Your task to perform on an android device: Search for sushi restaurants on Maps Image 0: 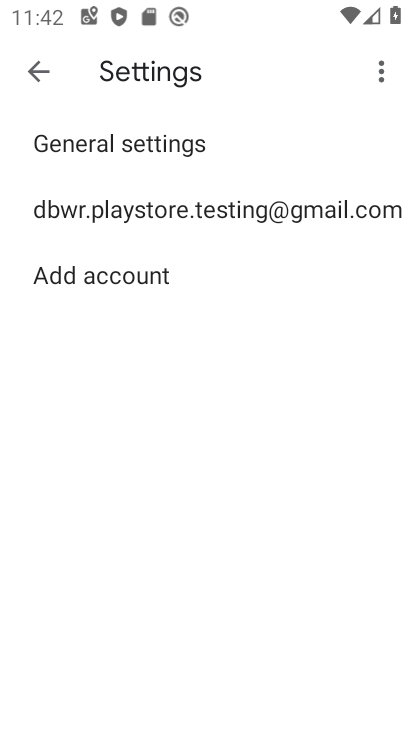
Step 0: press home button
Your task to perform on an android device: Search for sushi restaurants on Maps Image 1: 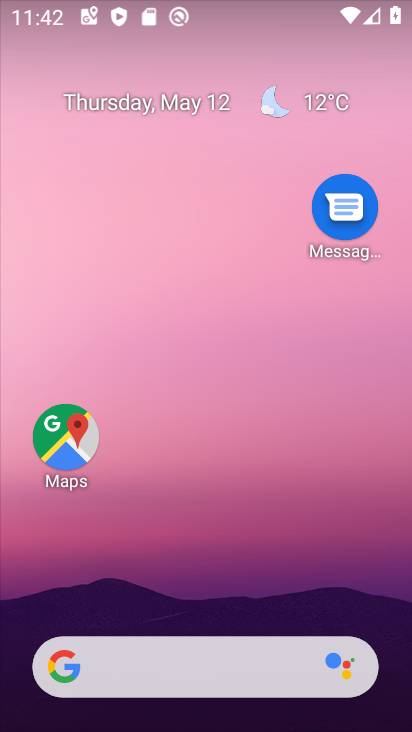
Step 1: drag from (199, 472) to (207, 35)
Your task to perform on an android device: Search for sushi restaurants on Maps Image 2: 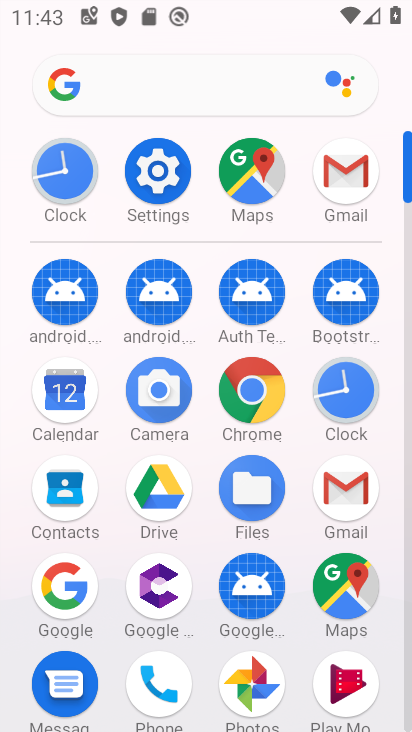
Step 2: click (345, 616)
Your task to perform on an android device: Search for sushi restaurants on Maps Image 3: 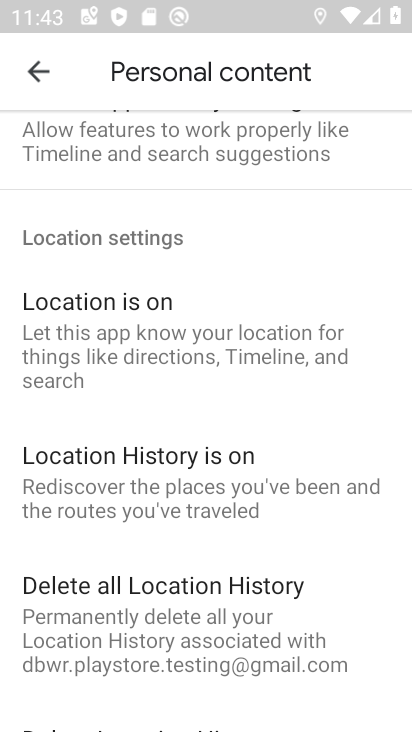
Step 3: click (19, 60)
Your task to perform on an android device: Search for sushi restaurants on Maps Image 4: 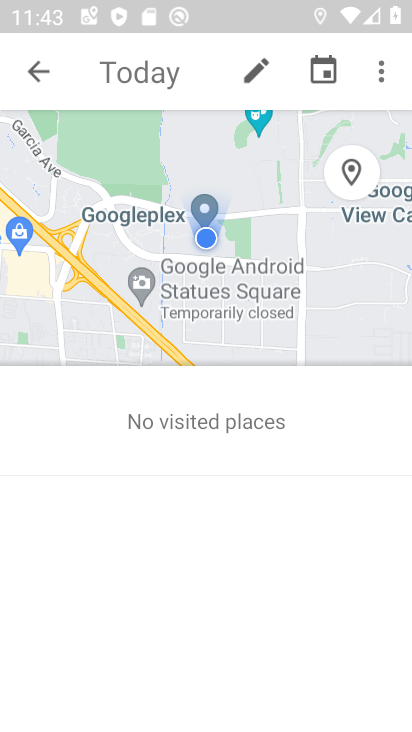
Step 4: click (19, 60)
Your task to perform on an android device: Search for sushi restaurants on Maps Image 5: 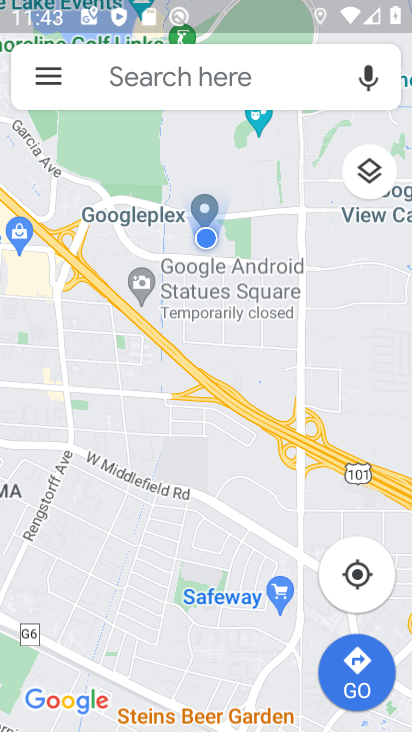
Step 5: click (110, 79)
Your task to perform on an android device: Search for sushi restaurants on Maps Image 6: 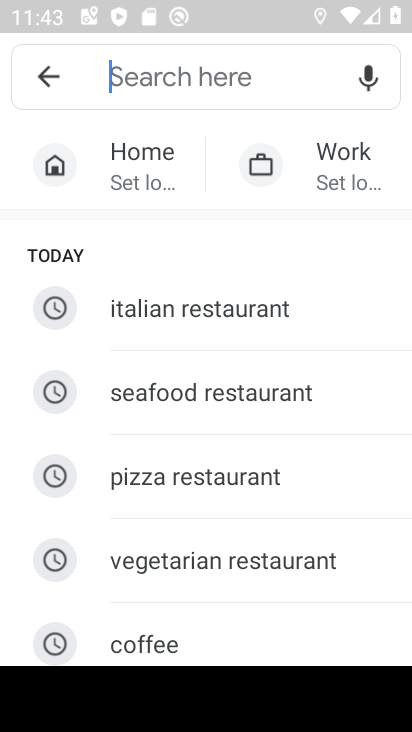
Step 6: type "sushi restaurants "
Your task to perform on an android device: Search for sushi restaurants on Maps Image 7: 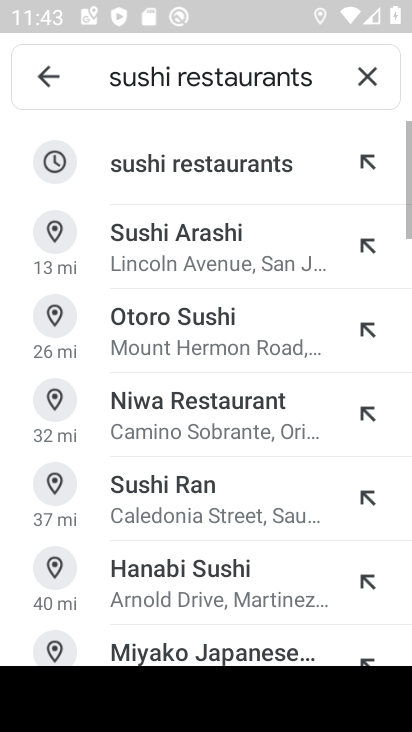
Step 7: click (113, 158)
Your task to perform on an android device: Search for sushi restaurants on Maps Image 8: 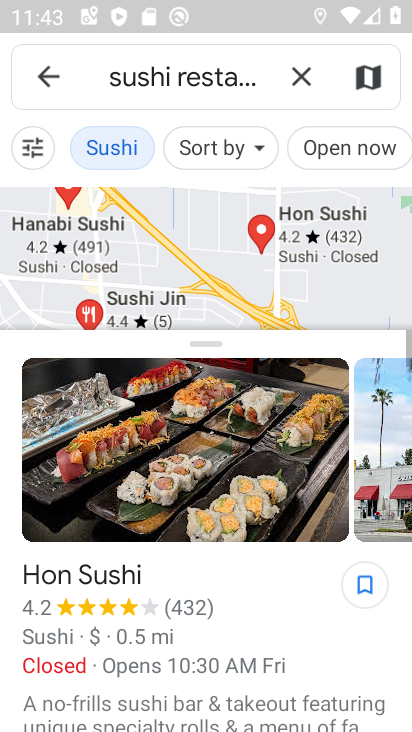
Step 8: task complete